Your task to perform on an android device: Go to network settings Image 0: 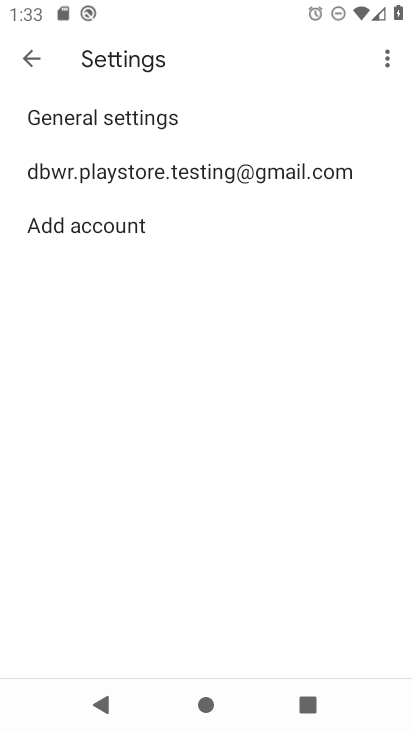
Step 0: press home button
Your task to perform on an android device: Go to network settings Image 1: 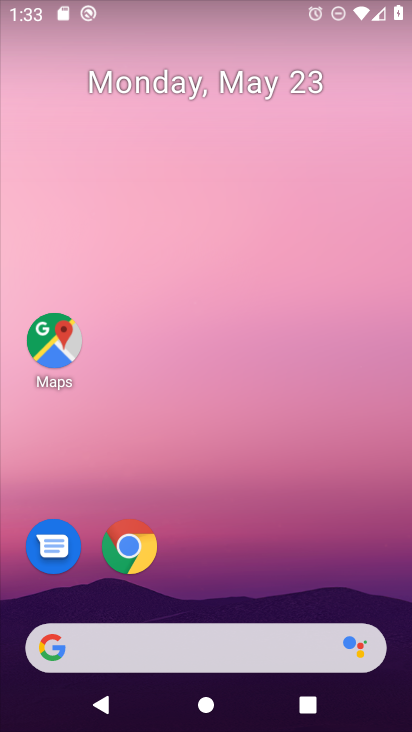
Step 1: drag from (179, 617) to (202, 243)
Your task to perform on an android device: Go to network settings Image 2: 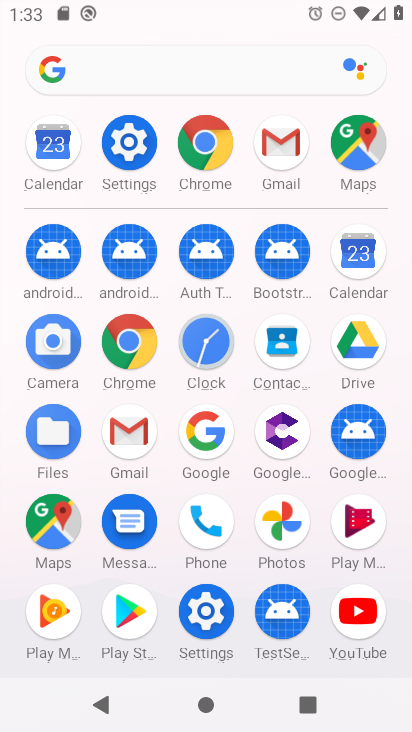
Step 2: click (127, 169)
Your task to perform on an android device: Go to network settings Image 3: 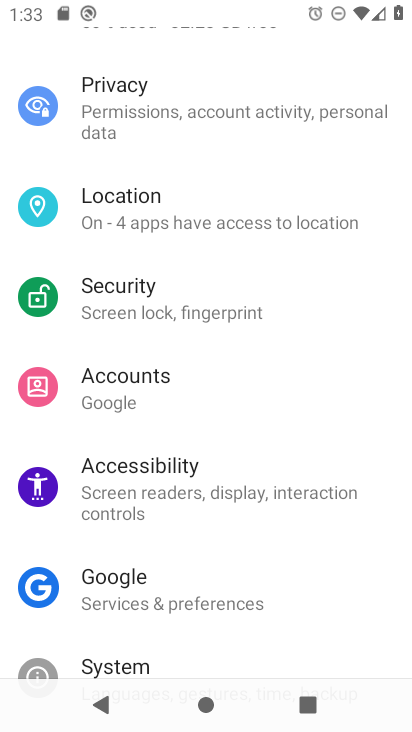
Step 3: drag from (227, 195) to (162, 627)
Your task to perform on an android device: Go to network settings Image 4: 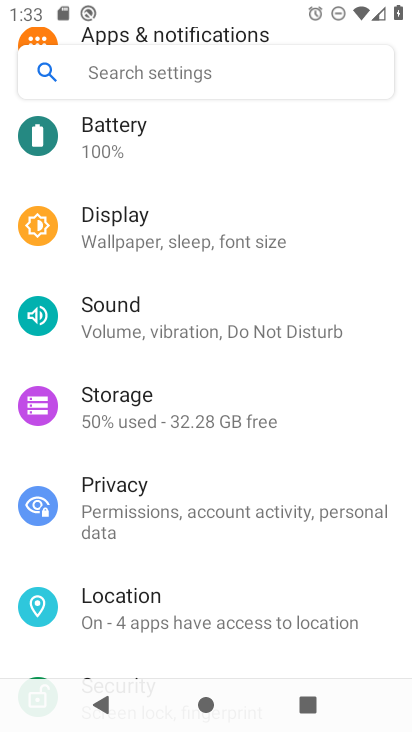
Step 4: drag from (176, 371) to (151, 728)
Your task to perform on an android device: Go to network settings Image 5: 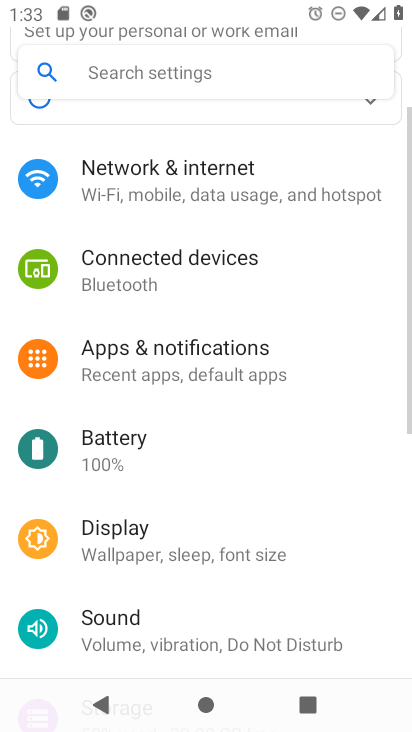
Step 5: drag from (227, 194) to (172, 592)
Your task to perform on an android device: Go to network settings Image 6: 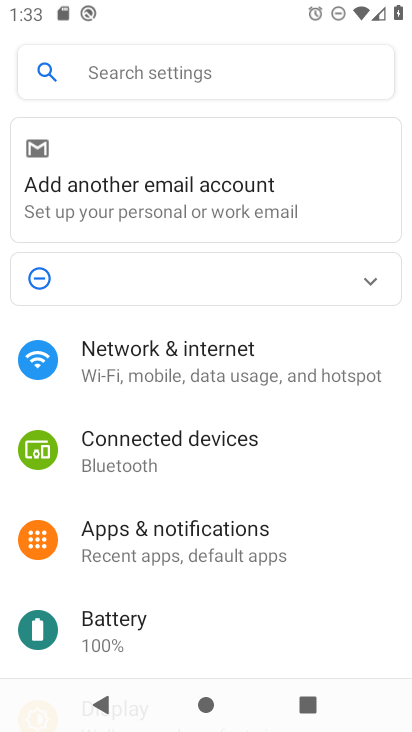
Step 6: click (215, 358)
Your task to perform on an android device: Go to network settings Image 7: 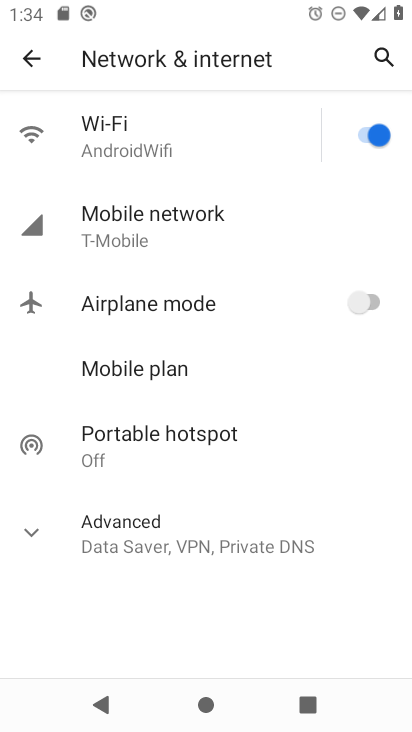
Step 7: click (177, 226)
Your task to perform on an android device: Go to network settings Image 8: 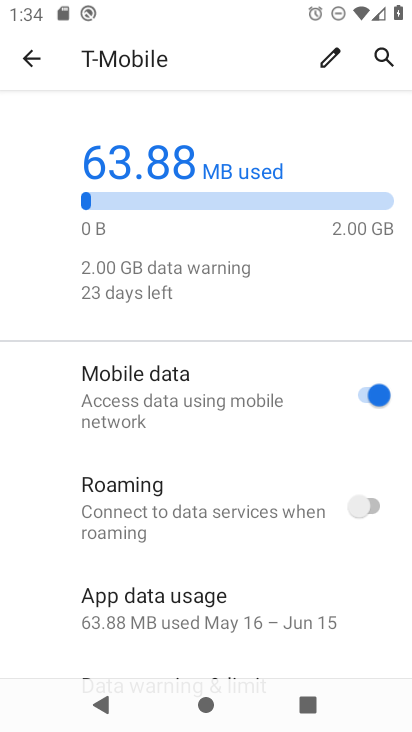
Step 8: task complete